Your task to perform on an android device: create a new album in the google photos Image 0: 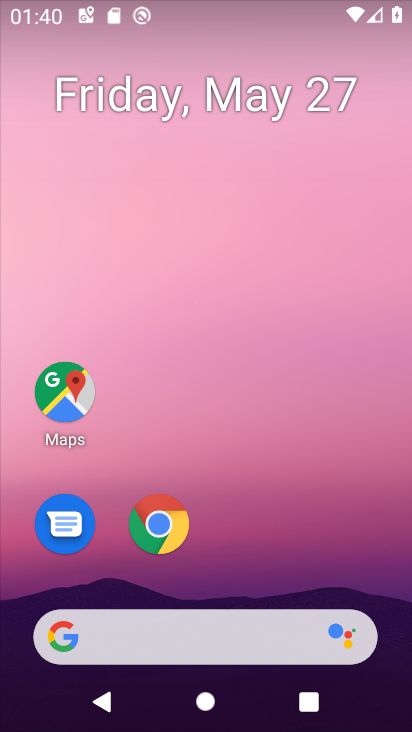
Step 0: drag from (250, 541) to (260, 20)
Your task to perform on an android device: create a new album in the google photos Image 1: 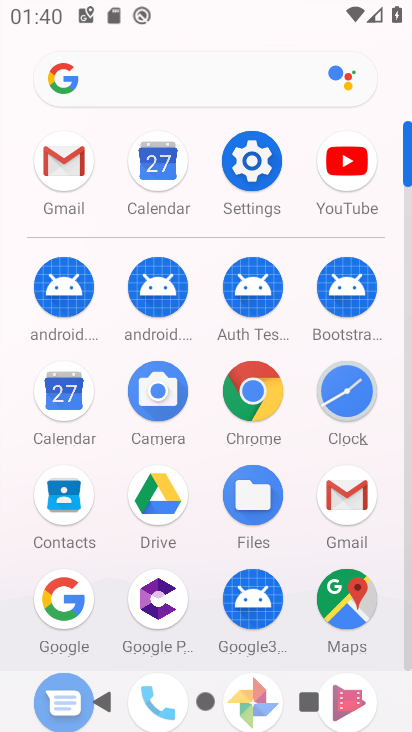
Step 1: drag from (207, 438) to (209, 198)
Your task to perform on an android device: create a new album in the google photos Image 2: 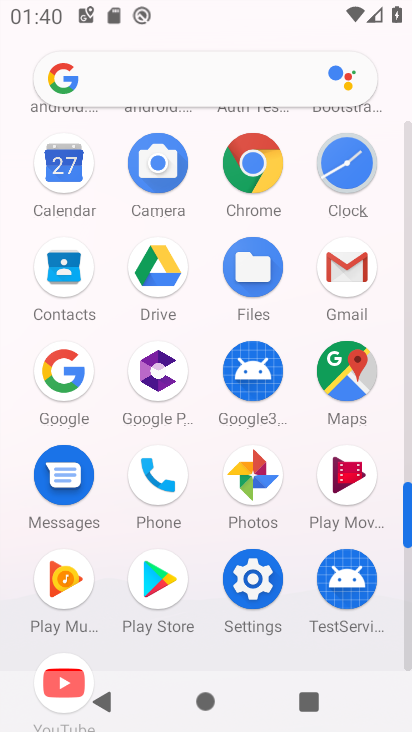
Step 2: click (249, 468)
Your task to perform on an android device: create a new album in the google photos Image 3: 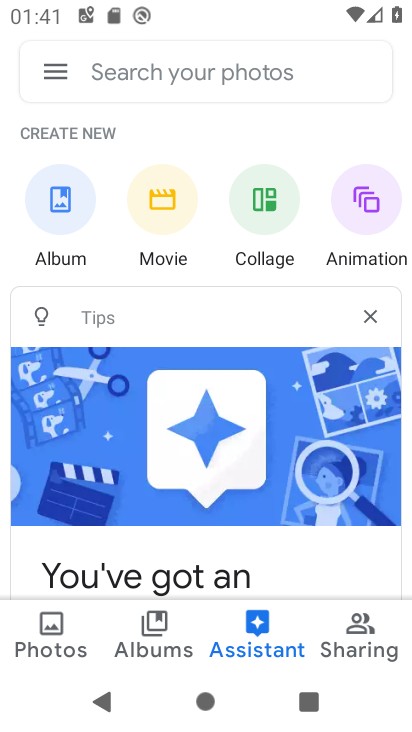
Step 3: click (159, 624)
Your task to perform on an android device: create a new album in the google photos Image 4: 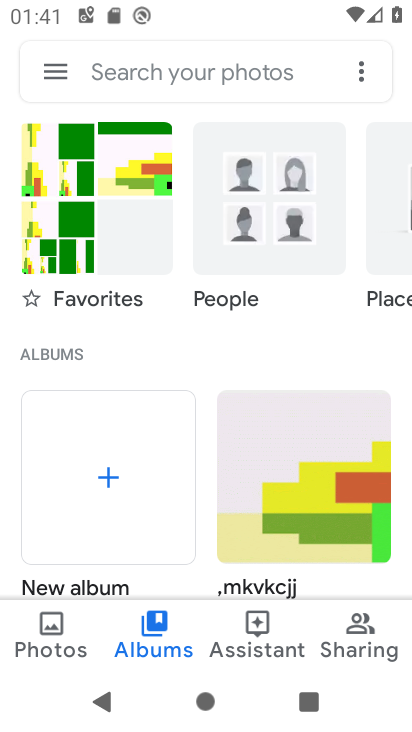
Step 4: click (108, 473)
Your task to perform on an android device: create a new album in the google photos Image 5: 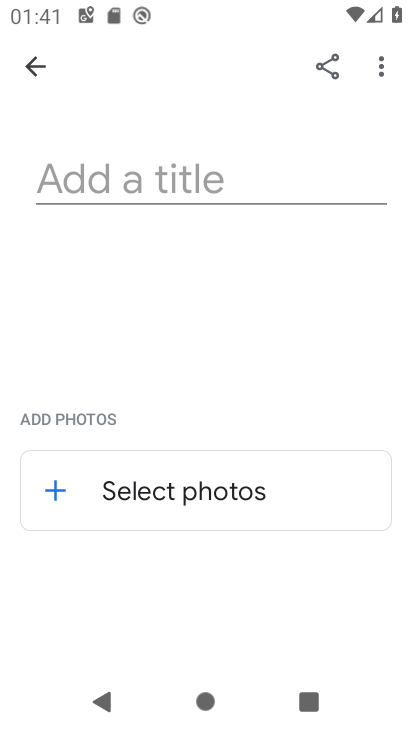
Step 5: click (252, 180)
Your task to perform on an android device: create a new album in the google photos Image 6: 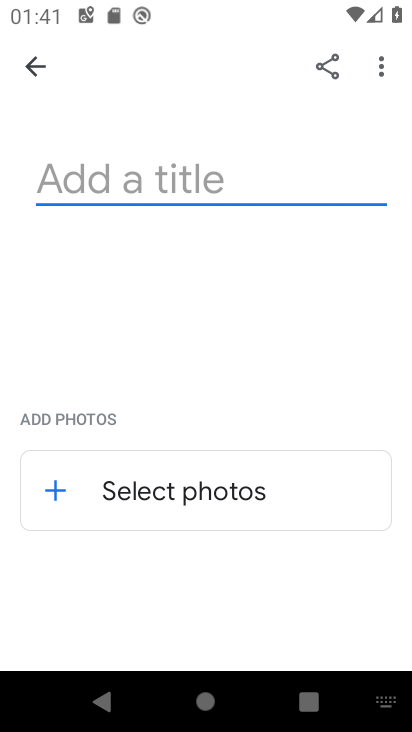
Step 6: type "Veermahan from Bharat"
Your task to perform on an android device: create a new album in the google photos Image 7: 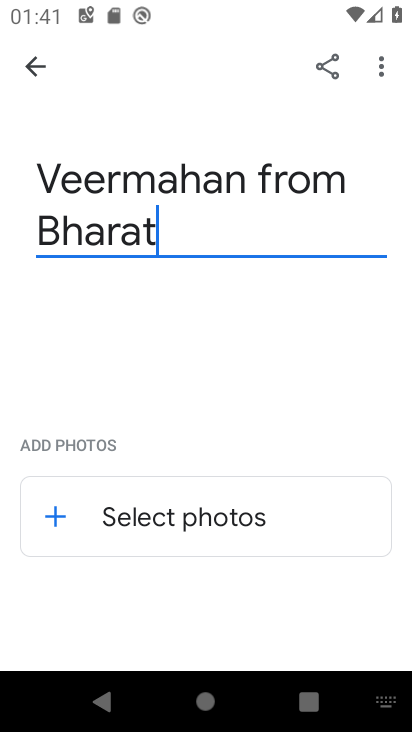
Step 7: click (183, 501)
Your task to perform on an android device: create a new album in the google photos Image 8: 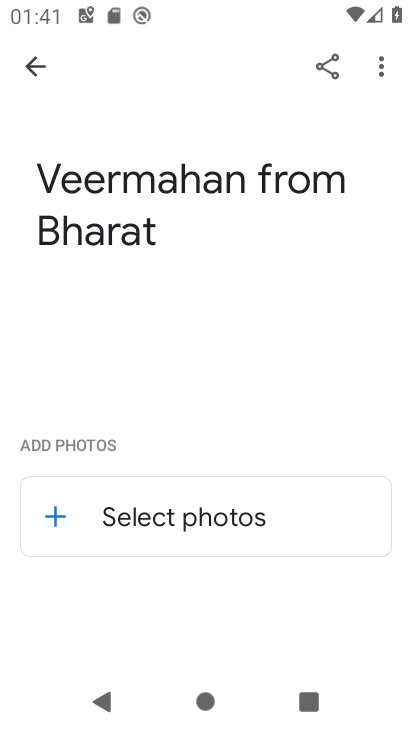
Step 8: click (57, 513)
Your task to perform on an android device: create a new album in the google photos Image 9: 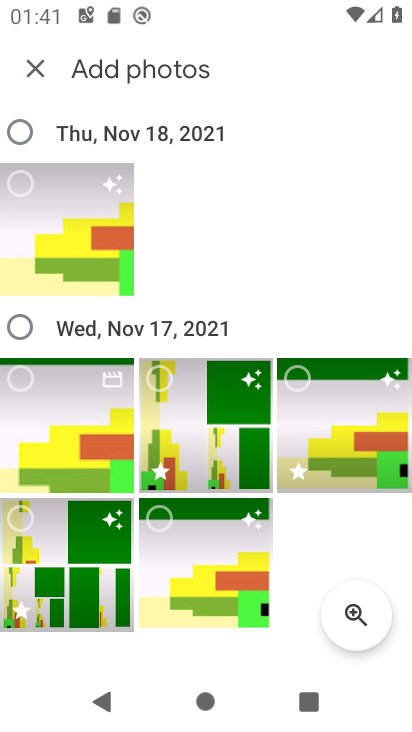
Step 9: click (17, 511)
Your task to perform on an android device: create a new album in the google photos Image 10: 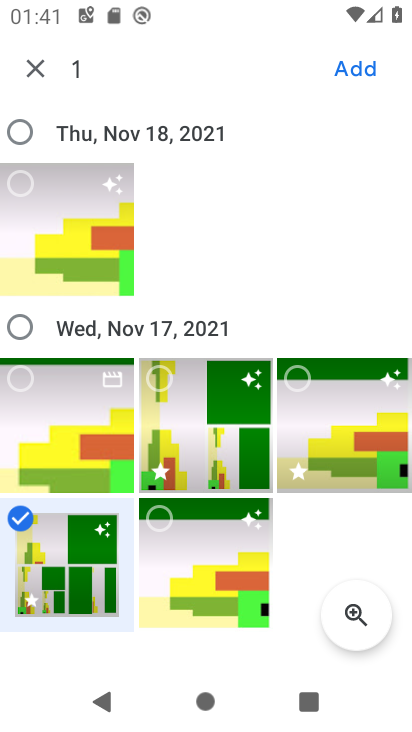
Step 10: click (158, 519)
Your task to perform on an android device: create a new album in the google photos Image 11: 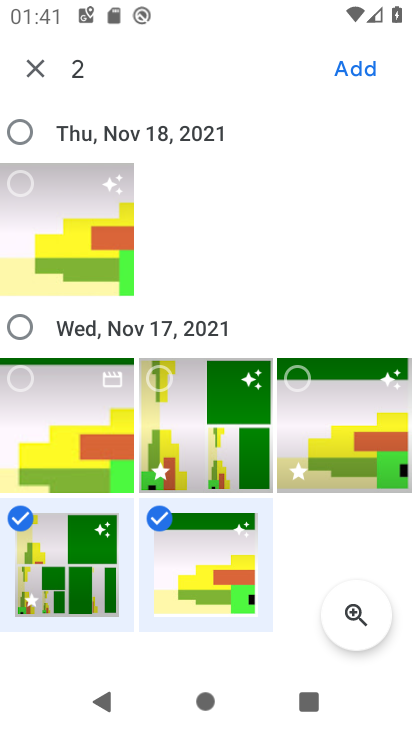
Step 11: click (361, 66)
Your task to perform on an android device: create a new album in the google photos Image 12: 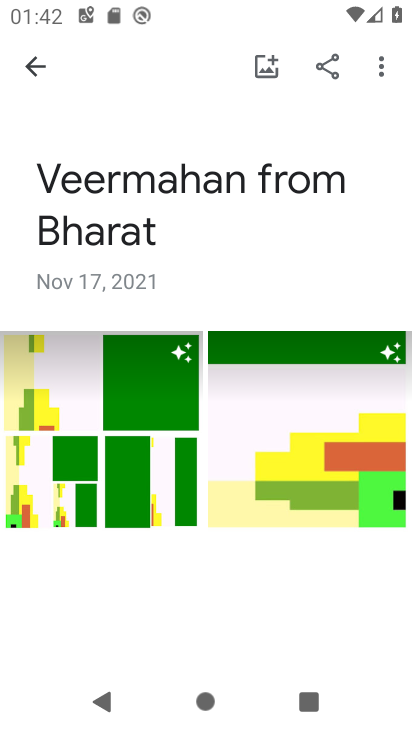
Step 12: task complete